Your task to perform on an android device: toggle airplane mode Image 0: 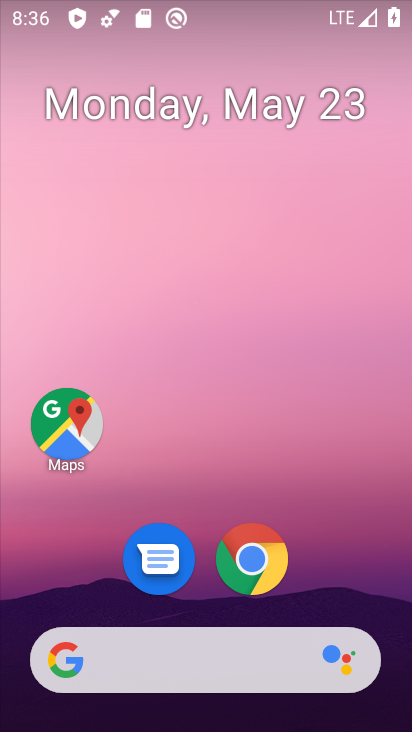
Step 0: drag from (321, 609) to (304, 67)
Your task to perform on an android device: toggle airplane mode Image 1: 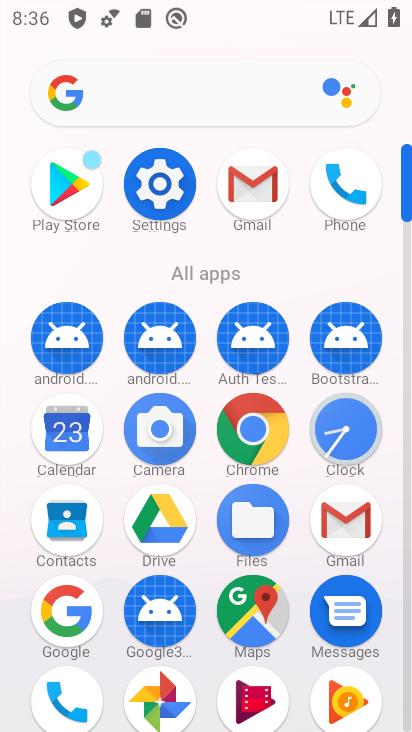
Step 1: click (154, 184)
Your task to perform on an android device: toggle airplane mode Image 2: 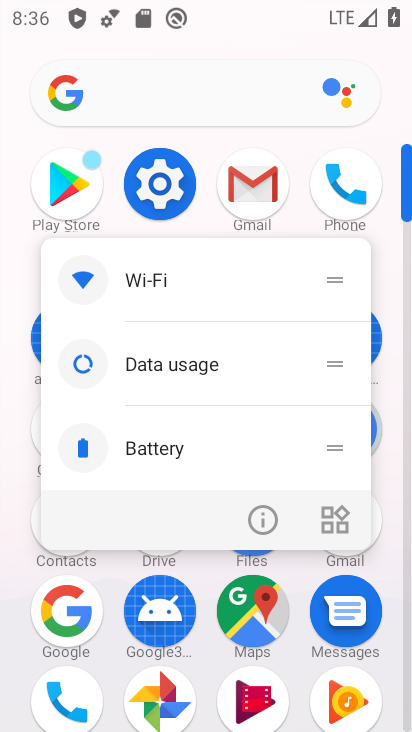
Step 2: click (154, 184)
Your task to perform on an android device: toggle airplane mode Image 3: 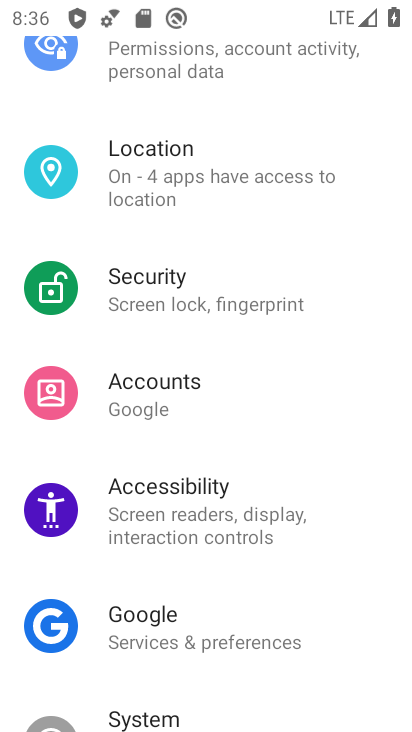
Step 3: drag from (153, 193) to (199, 427)
Your task to perform on an android device: toggle airplane mode Image 4: 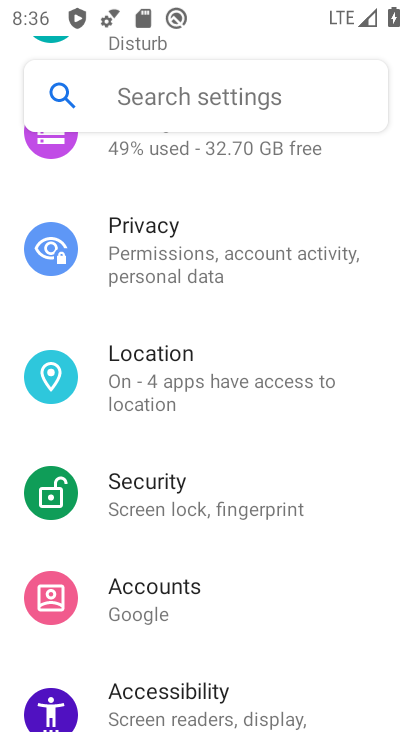
Step 4: drag from (174, 251) to (173, 468)
Your task to perform on an android device: toggle airplane mode Image 5: 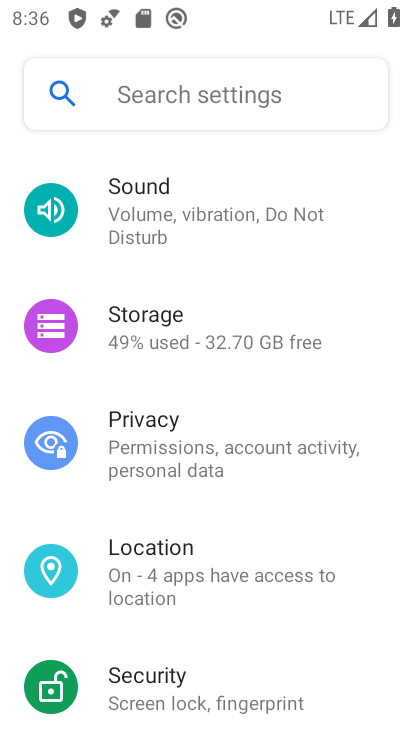
Step 5: drag from (191, 283) to (267, 558)
Your task to perform on an android device: toggle airplane mode Image 6: 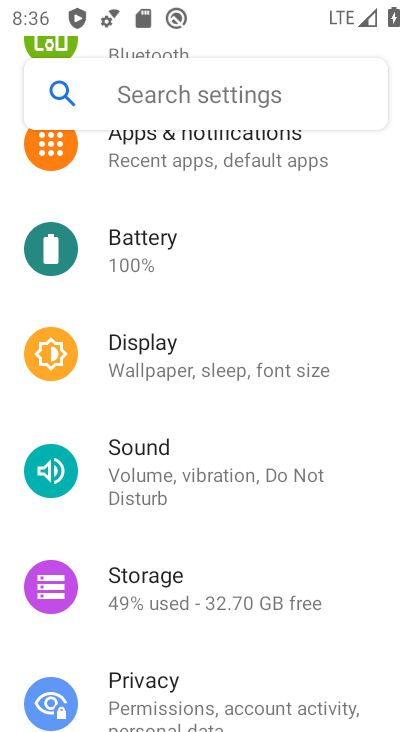
Step 6: drag from (207, 334) to (245, 532)
Your task to perform on an android device: toggle airplane mode Image 7: 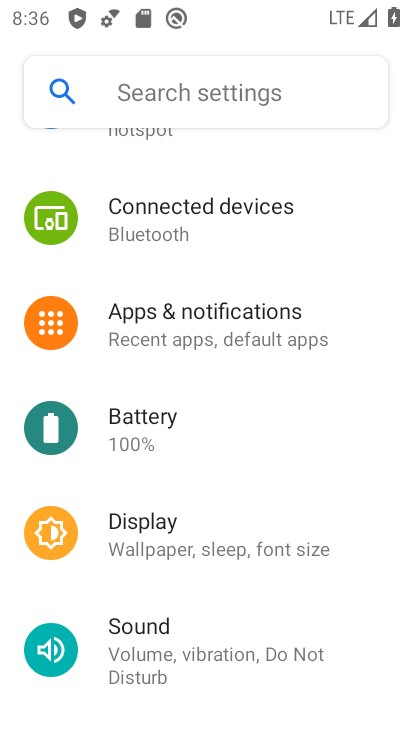
Step 7: drag from (193, 371) to (179, 559)
Your task to perform on an android device: toggle airplane mode Image 8: 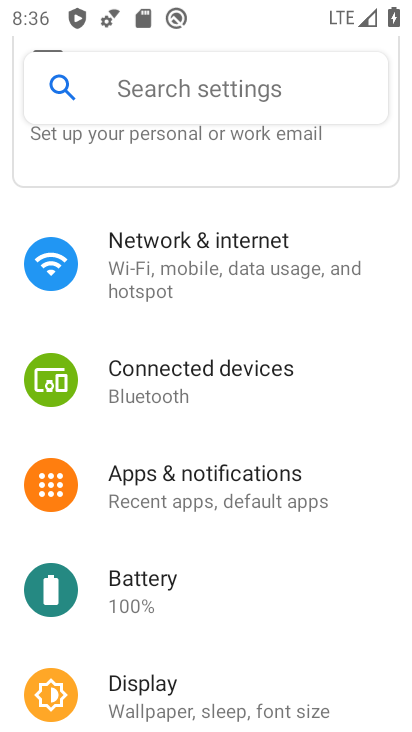
Step 8: click (203, 272)
Your task to perform on an android device: toggle airplane mode Image 9: 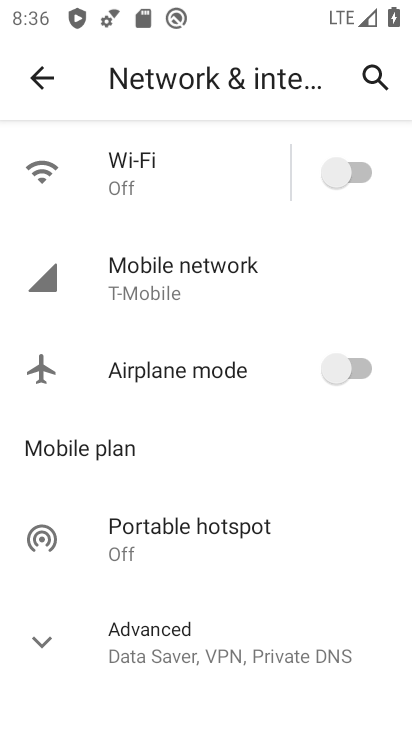
Step 9: click (340, 370)
Your task to perform on an android device: toggle airplane mode Image 10: 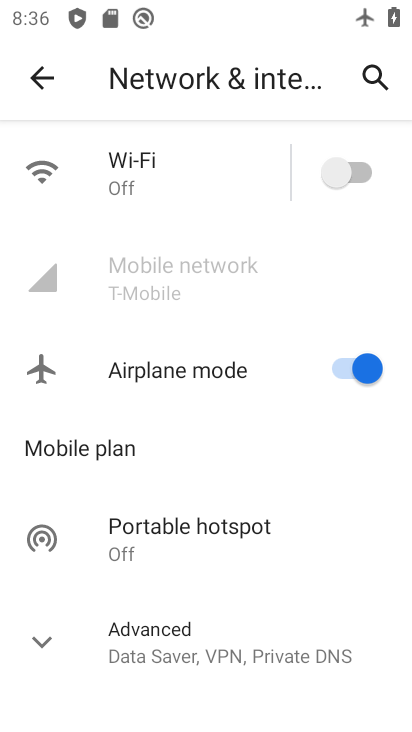
Step 10: task complete